Your task to perform on an android device: Play the last video I watched on Youtube Image 0: 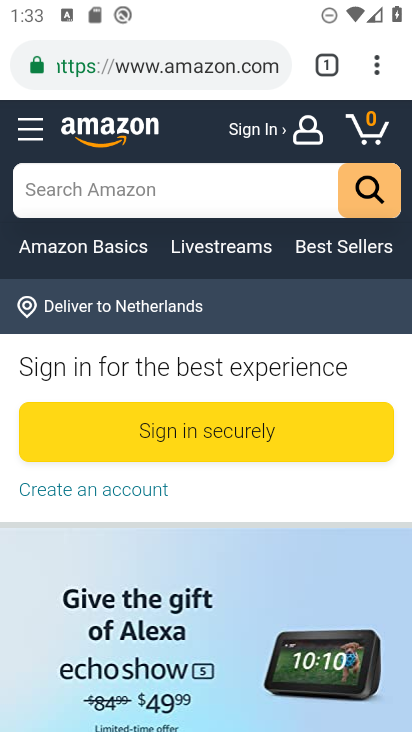
Step 0: press home button
Your task to perform on an android device: Play the last video I watched on Youtube Image 1: 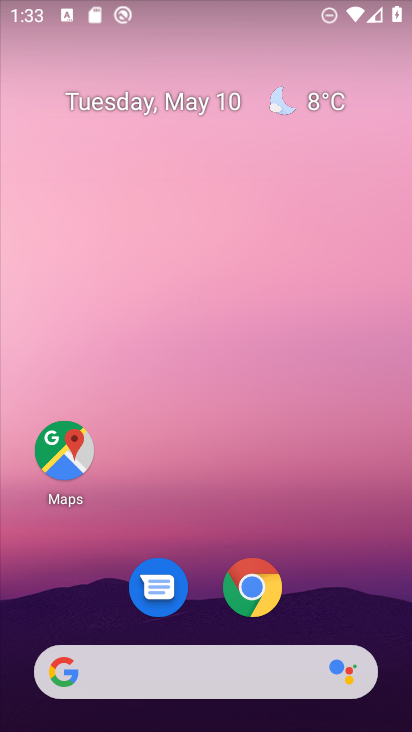
Step 1: drag from (368, 512) to (343, 312)
Your task to perform on an android device: Play the last video I watched on Youtube Image 2: 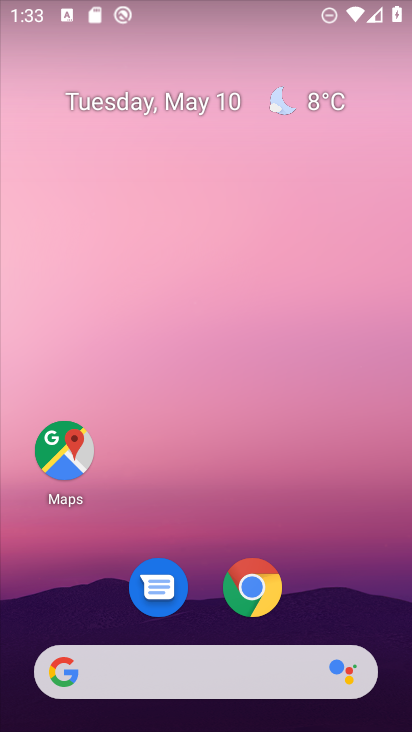
Step 2: drag from (395, 681) to (368, 303)
Your task to perform on an android device: Play the last video I watched on Youtube Image 3: 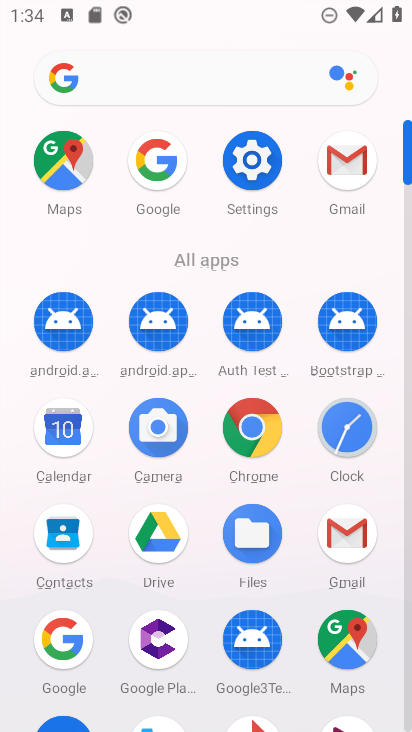
Step 3: drag from (406, 129) to (401, 76)
Your task to perform on an android device: Play the last video I watched on Youtube Image 4: 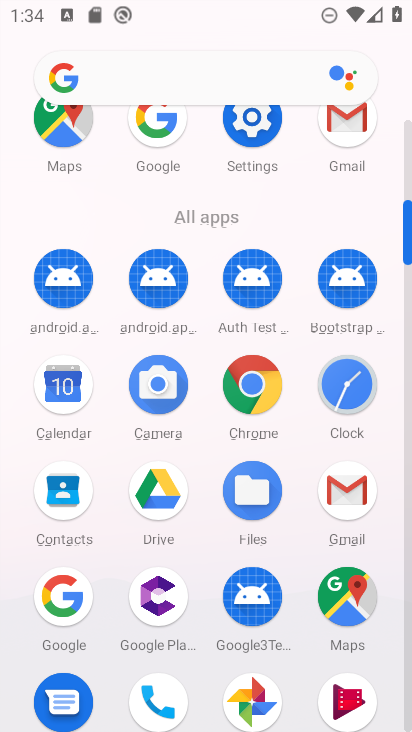
Step 4: drag from (405, 216) to (410, 142)
Your task to perform on an android device: Play the last video I watched on Youtube Image 5: 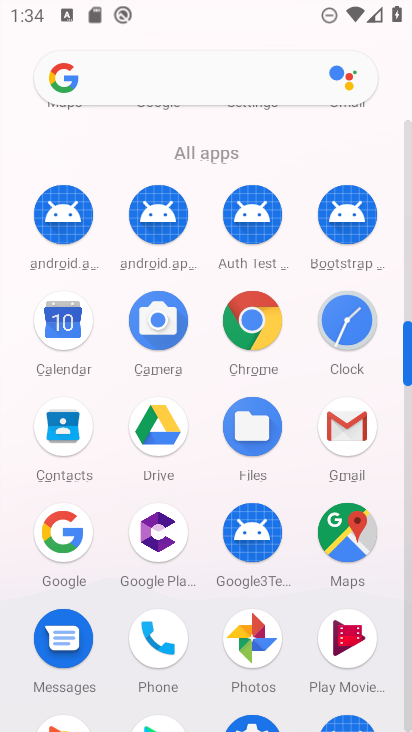
Step 5: drag from (405, 337) to (399, 250)
Your task to perform on an android device: Play the last video I watched on Youtube Image 6: 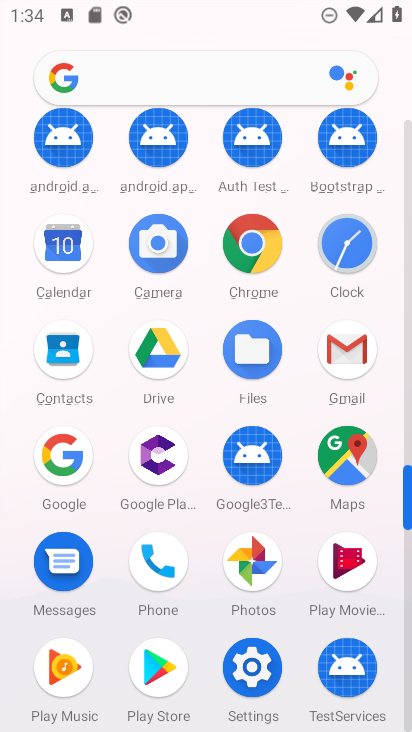
Step 6: drag from (409, 474) to (400, 343)
Your task to perform on an android device: Play the last video I watched on Youtube Image 7: 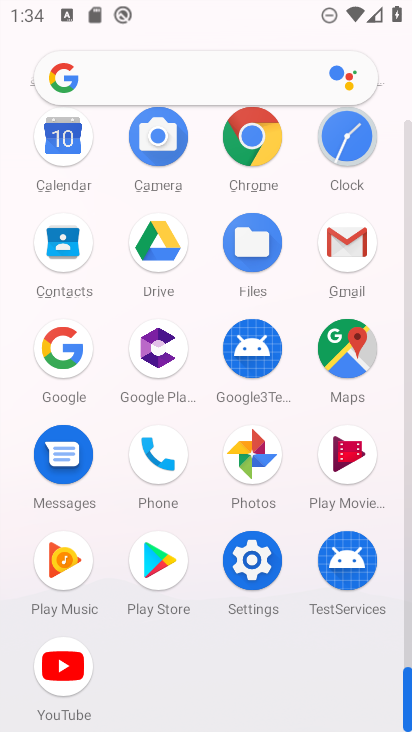
Step 7: click (56, 667)
Your task to perform on an android device: Play the last video I watched on Youtube Image 8: 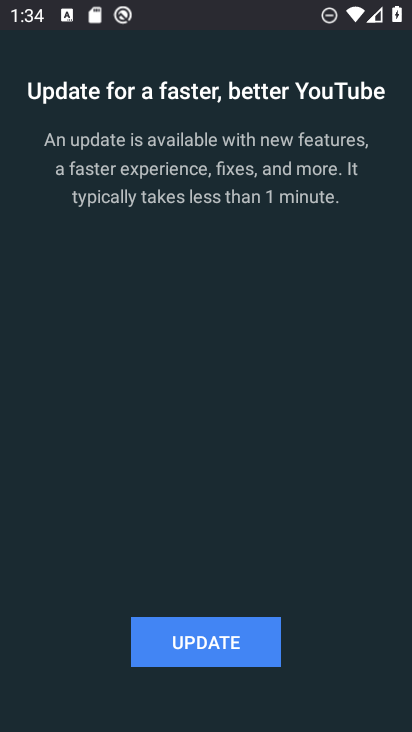
Step 8: click (179, 641)
Your task to perform on an android device: Play the last video I watched on Youtube Image 9: 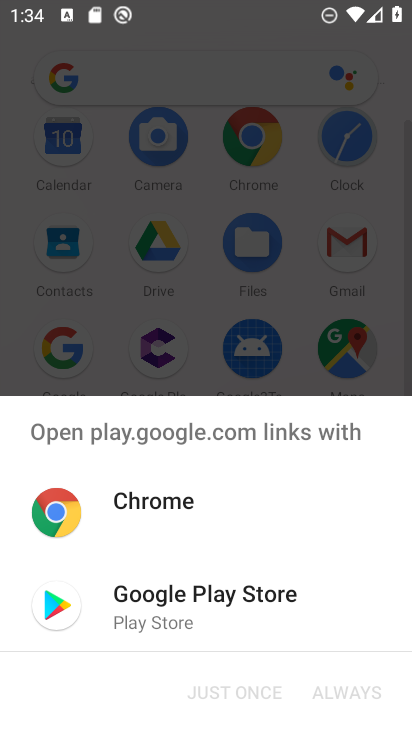
Step 9: click (140, 598)
Your task to perform on an android device: Play the last video I watched on Youtube Image 10: 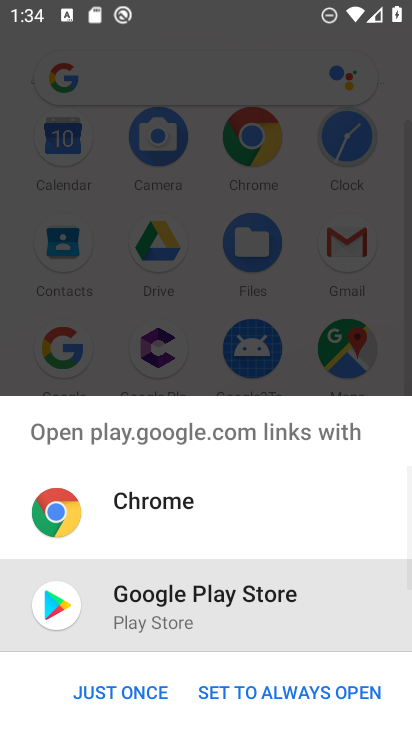
Step 10: click (126, 687)
Your task to perform on an android device: Play the last video I watched on Youtube Image 11: 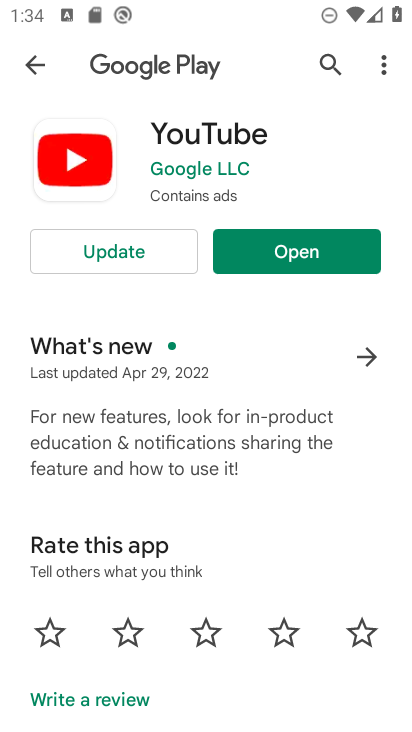
Step 11: click (135, 247)
Your task to perform on an android device: Play the last video I watched on Youtube Image 12: 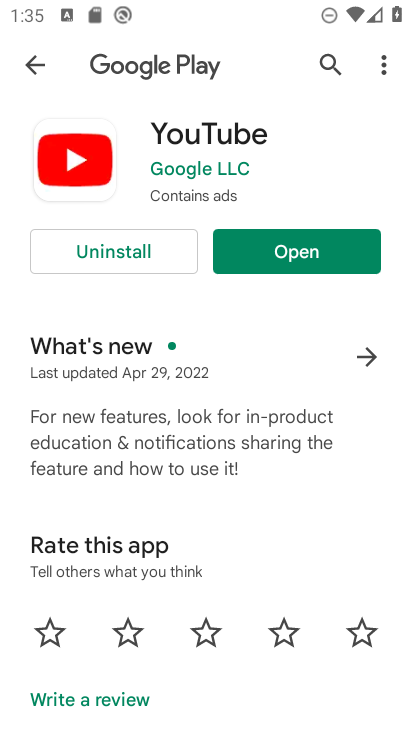
Step 12: click (351, 250)
Your task to perform on an android device: Play the last video I watched on Youtube Image 13: 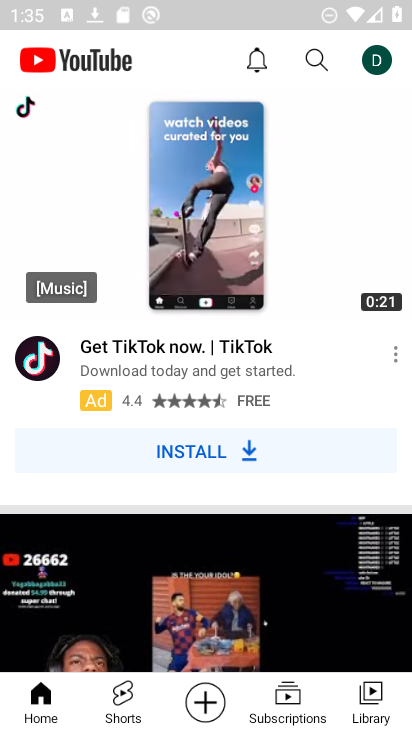
Step 13: click (371, 701)
Your task to perform on an android device: Play the last video I watched on Youtube Image 14: 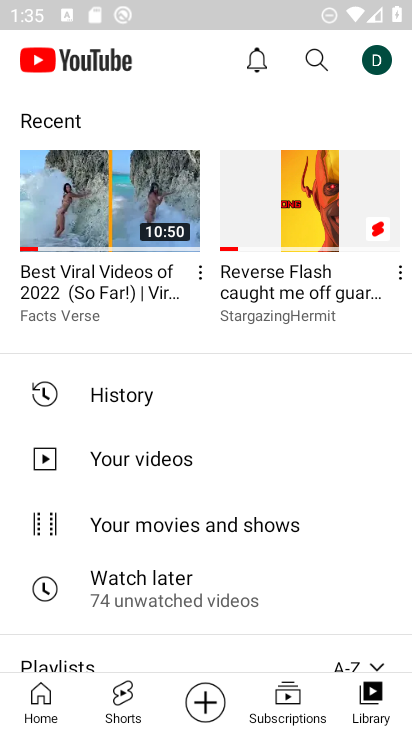
Step 14: click (97, 198)
Your task to perform on an android device: Play the last video I watched on Youtube Image 15: 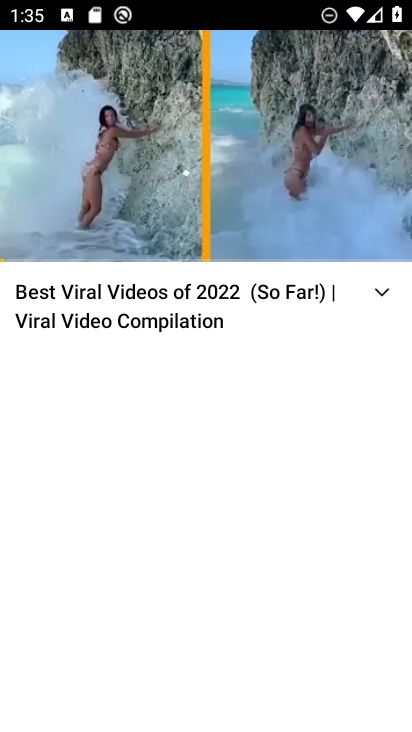
Step 15: task complete